Your task to perform on an android device: Open the web browser Image 0: 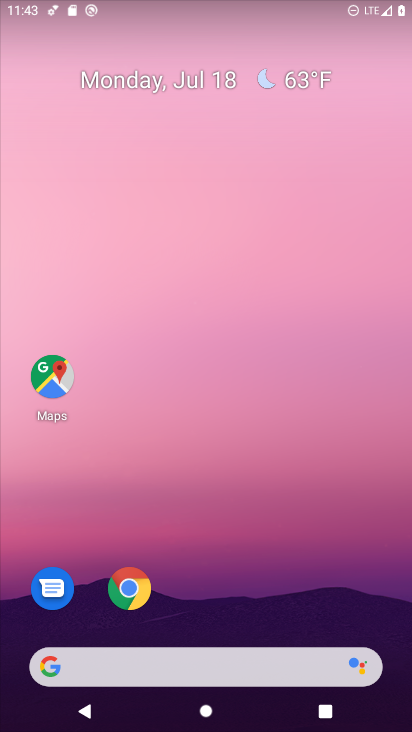
Step 0: drag from (181, 652) to (177, 177)
Your task to perform on an android device: Open the web browser Image 1: 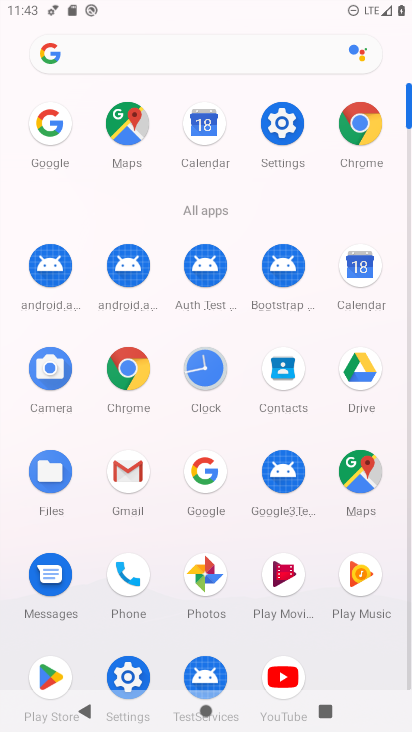
Step 1: click (359, 129)
Your task to perform on an android device: Open the web browser Image 2: 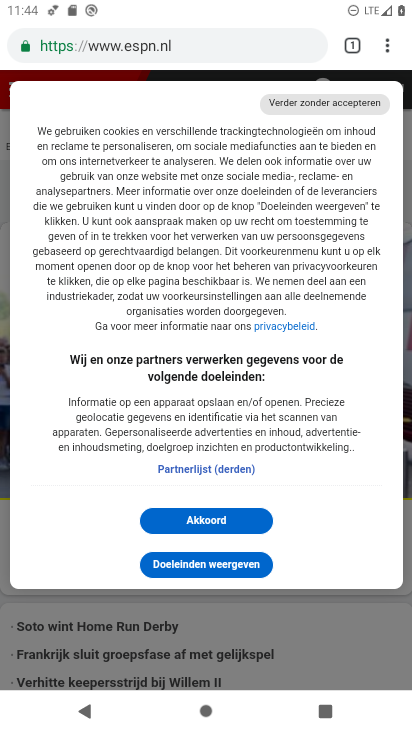
Step 2: task complete